Your task to perform on an android device: turn on improve location accuracy Image 0: 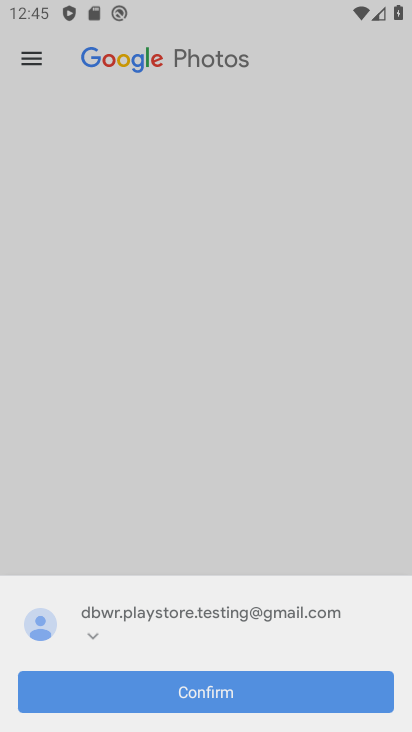
Step 0: press back button
Your task to perform on an android device: turn on improve location accuracy Image 1: 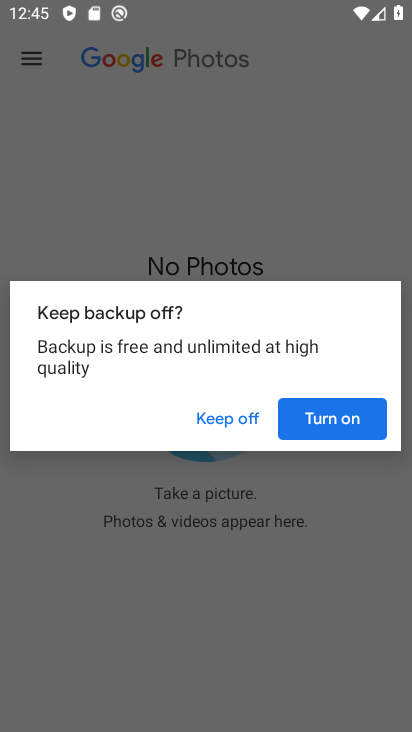
Step 1: press home button
Your task to perform on an android device: turn on improve location accuracy Image 2: 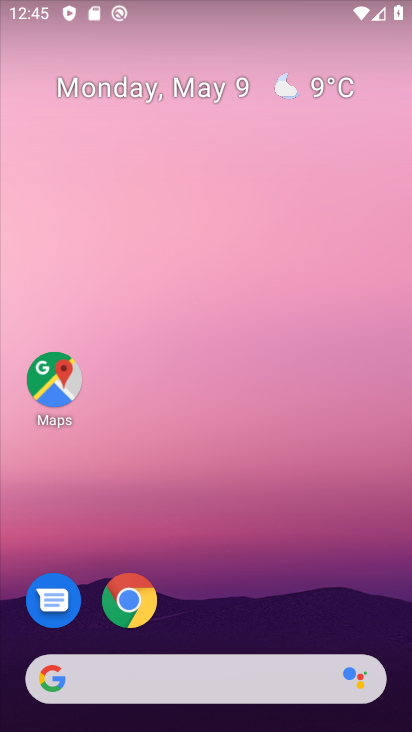
Step 2: drag from (238, 638) to (284, 232)
Your task to perform on an android device: turn on improve location accuracy Image 3: 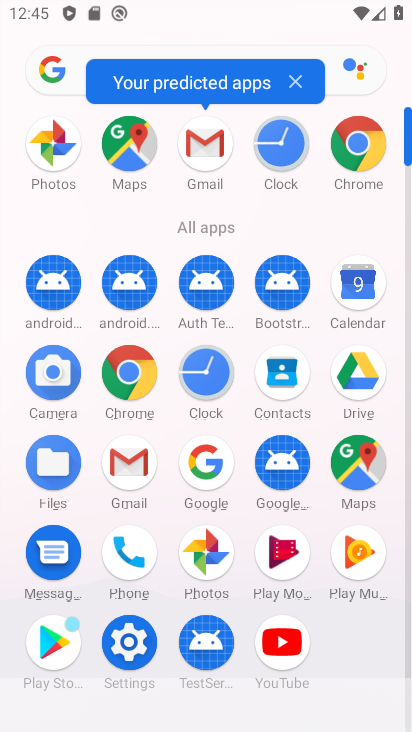
Step 3: click (143, 641)
Your task to perform on an android device: turn on improve location accuracy Image 4: 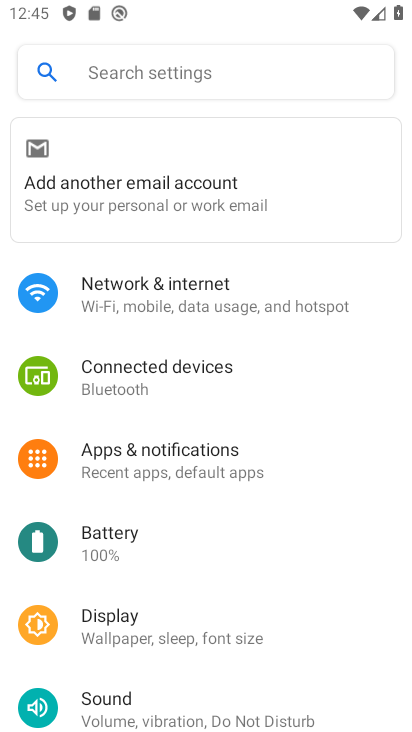
Step 4: drag from (185, 652) to (219, 545)
Your task to perform on an android device: turn on improve location accuracy Image 5: 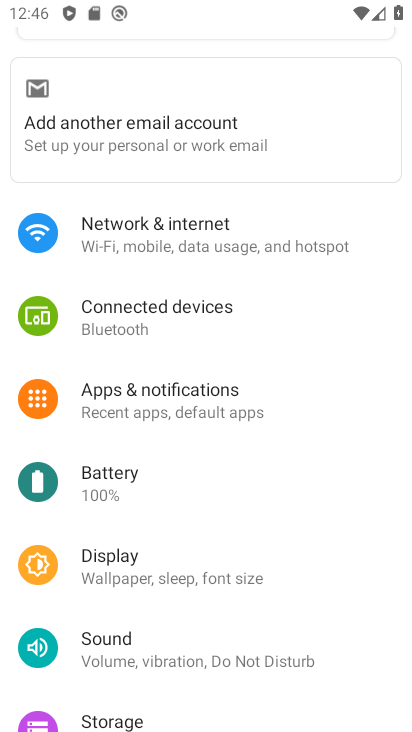
Step 5: drag from (228, 679) to (297, 493)
Your task to perform on an android device: turn on improve location accuracy Image 6: 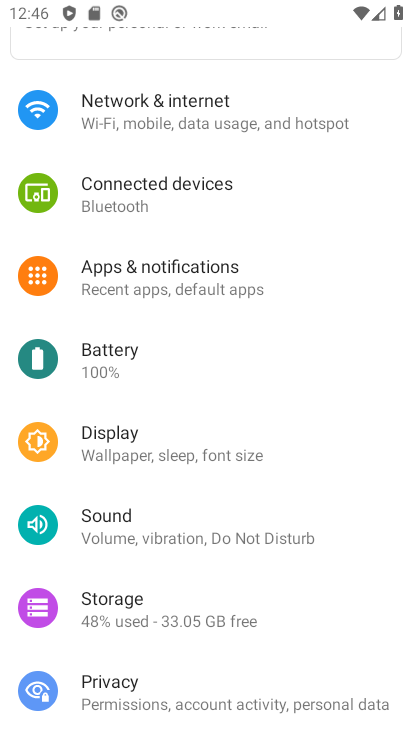
Step 6: drag from (186, 671) to (293, 454)
Your task to perform on an android device: turn on improve location accuracy Image 7: 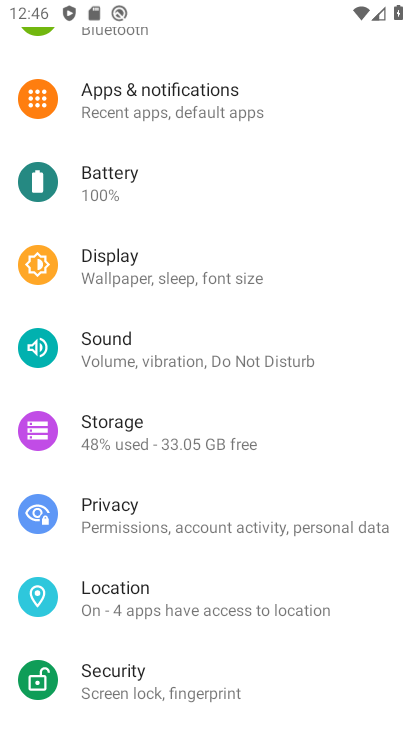
Step 7: click (192, 585)
Your task to perform on an android device: turn on improve location accuracy Image 8: 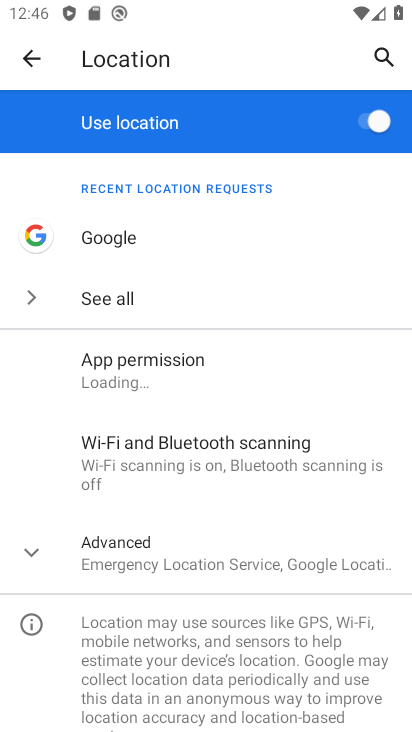
Step 8: click (196, 579)
Your task to perform on an android device: turn on improve location accuracy Image 9: 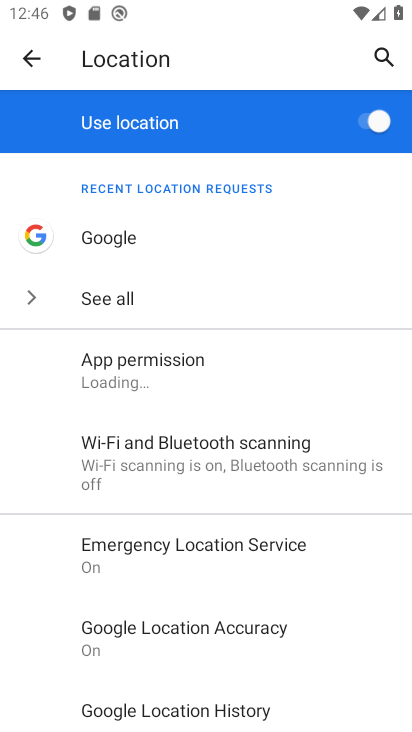
Step 9: drag from (200, 702) to (318, 494)
Your task to perform on an android device: turn on improve location accuracy Image 10: 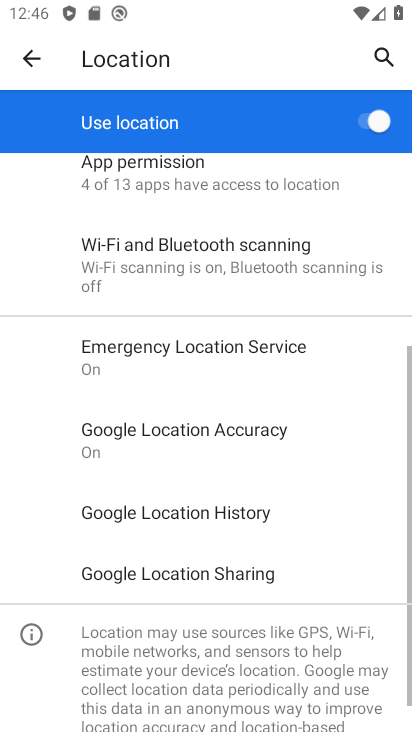
Step 10: click (289, 420)
Your task to perform on an android device: turn on improve location accuracy Image 11: 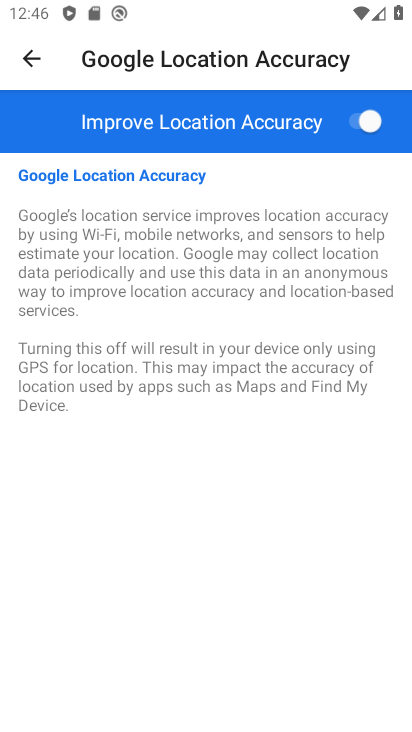
Step 11: task complete